Your task to perform on an android device: empty trash in google photos Image 0: 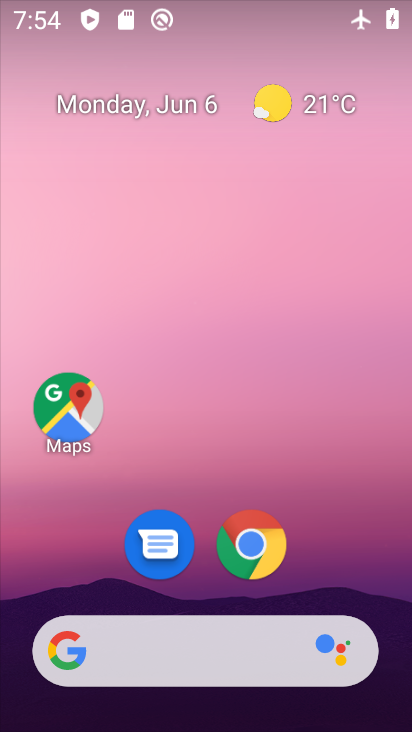
Step 0: drag from (320, 507) to (321, 213)
Your task to perform on an android device: empty trash in google photos Image 1: 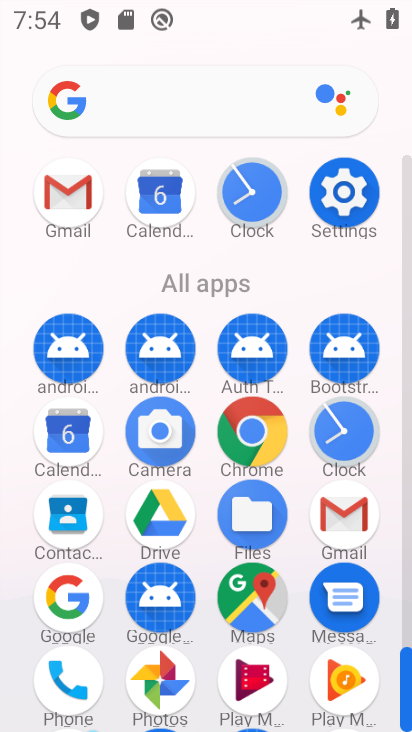
Step 1: click (59, 202)
Your task to perform on an android device: empty trash in google photos Image 2: 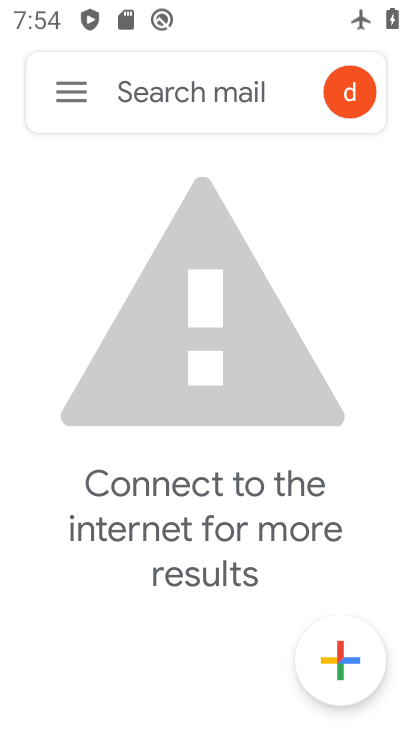
Step 2: click (74, 88)
Your task to perform on an android device: empty trash in google photos Image 3: 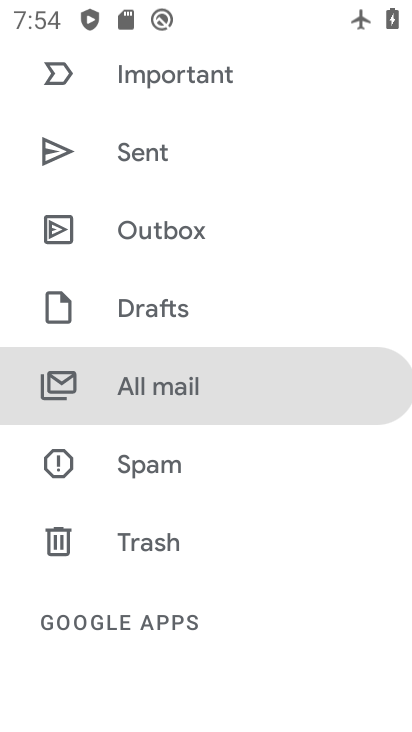
Step 3: click (175, 534)
Your task to perform on an android device: empty trash in google photos Image 4: 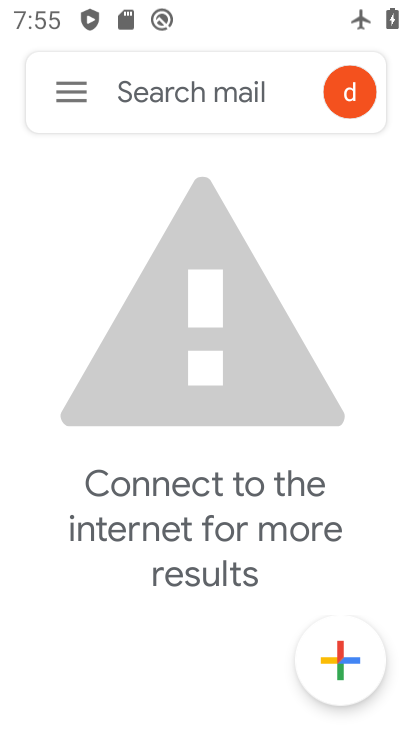
Step 4: click (75, 76)
Your task to perform on an android device: empty trash in google photos Image 5: 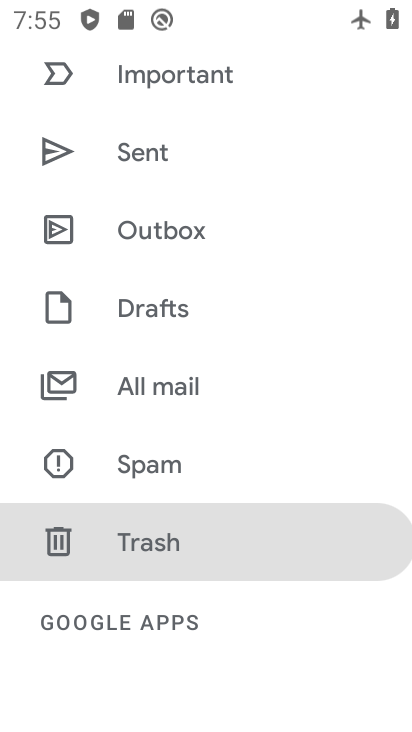
Step 5: click (161, 538)
Your task to perform on an android device: empty trash in google photos Image 6: 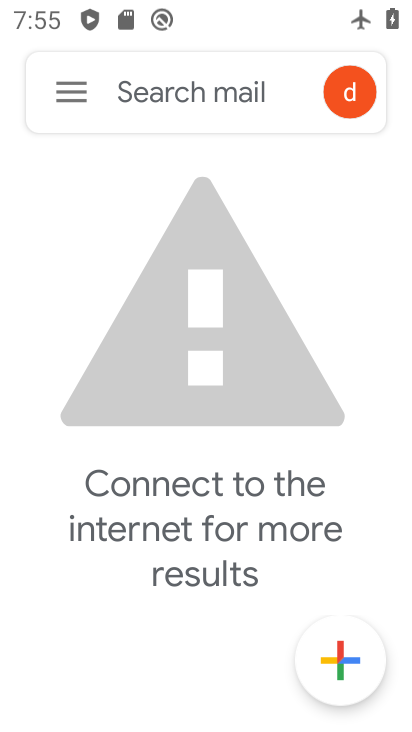
Step 6: task complete